Your task to perform on an android device: turn on wifi Image 0: 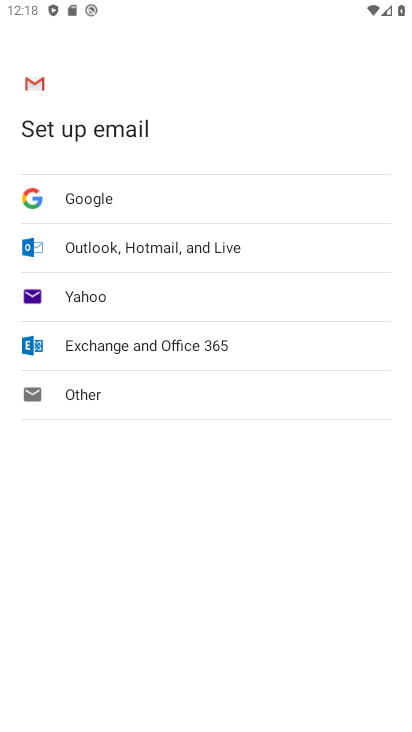
Step 0: press home button
Your task to perform on an android device: turn on wifi Image 1: 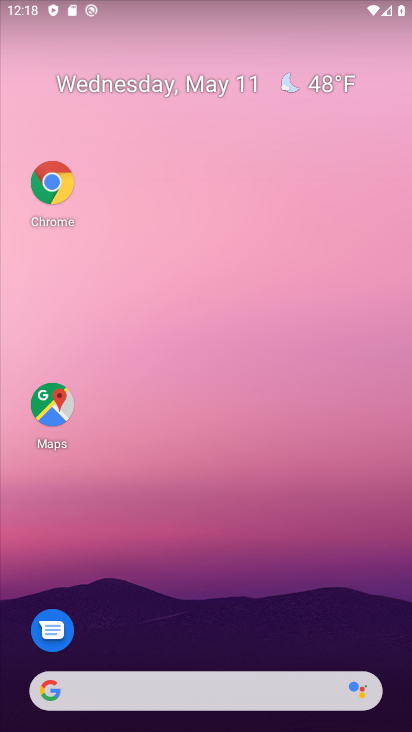
Step 1: drag from (242, 657) to (191, 78)
Your task to perform on an android device: turn on wifi Image 2: 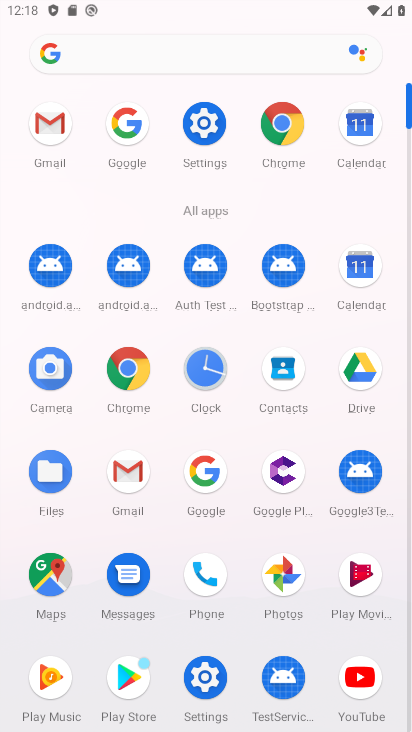
Step 2: click (211, 142)
Your task to perform on an android device: turn on wifi Image 3: 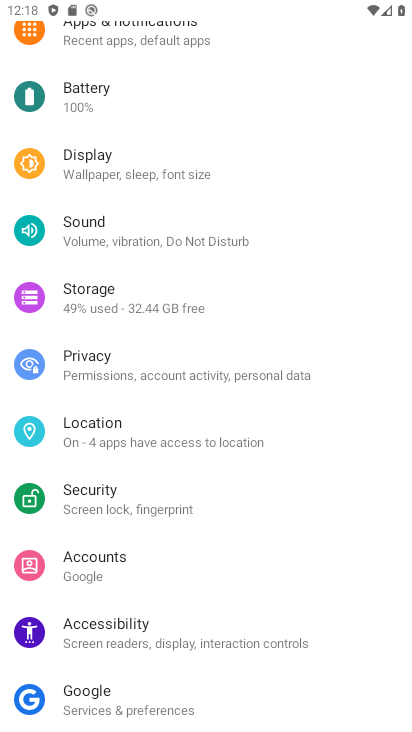
Step 3: drag from (205, 143) to (208, 628)
Your task to perform on an android device: turn on wifi Image 4: 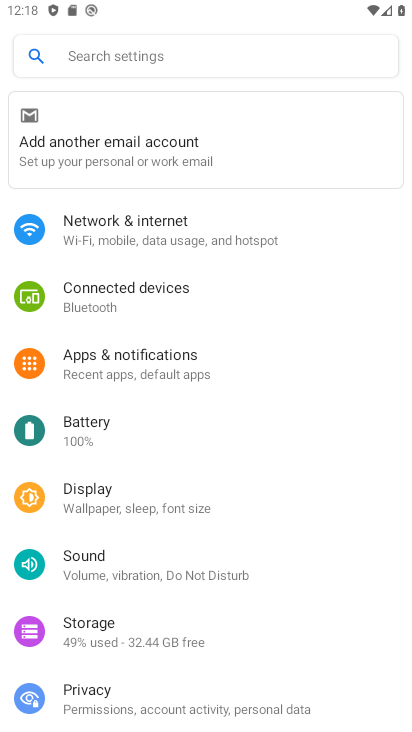
Step 4: click (152, 219)
Your task to perform on an android device: turn on wifi Image 5: 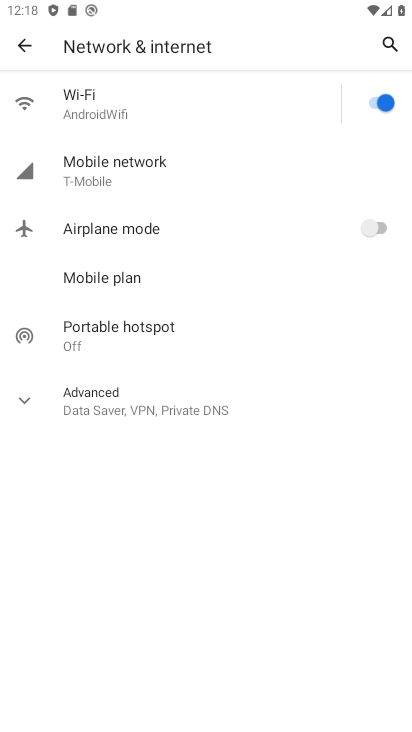
Step 5: task complete